Your task to perform on an android device: turn off notifications settings in the gmail app Image 0: 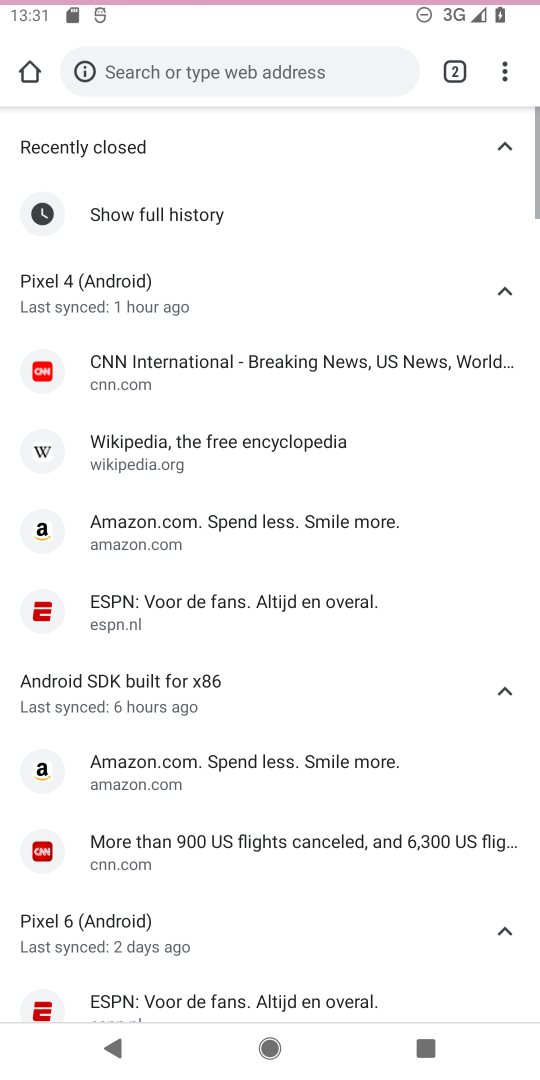
Step 0: press home button
Your task to perform on an android device: turn off notifications settings in the gmail app Image 1: 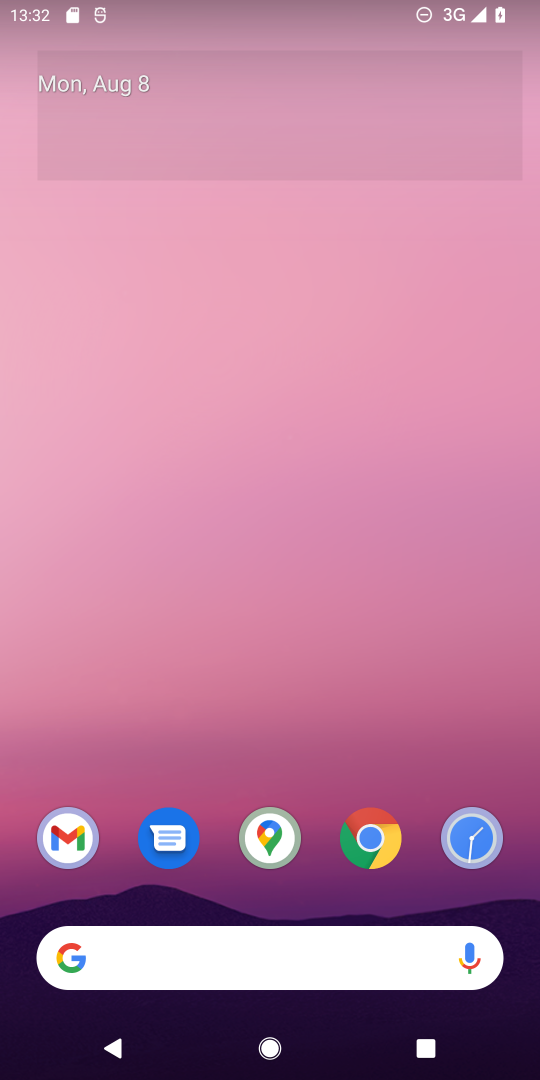
Step 1: click (66, 836)
Your task to perform on an android device: turn off notifications settings in the gmail app Image 2: 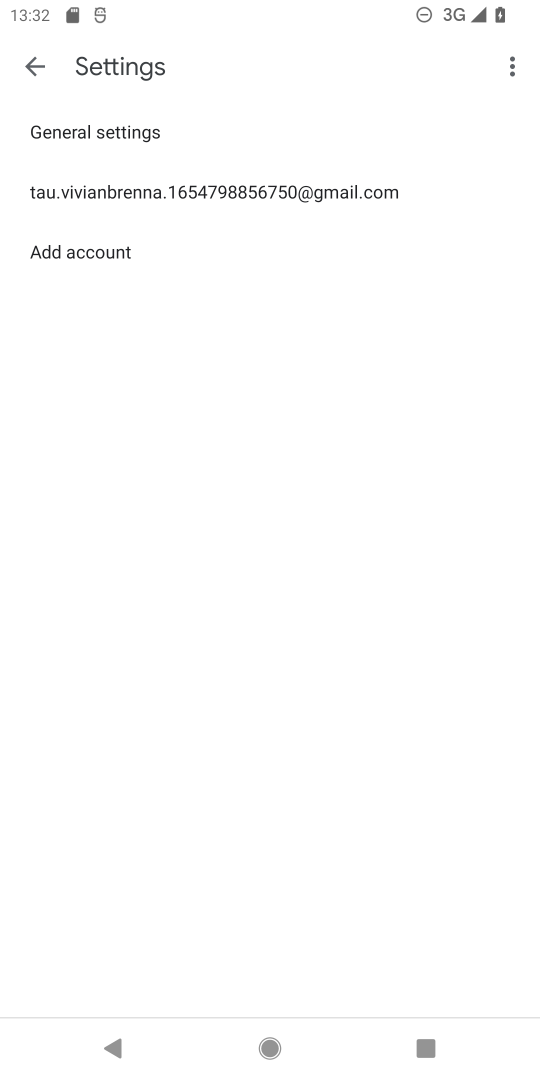
Step 2: click (148, 189)
Your task to perform on an android device: turn off notifications settings in the gmail app Image 3: 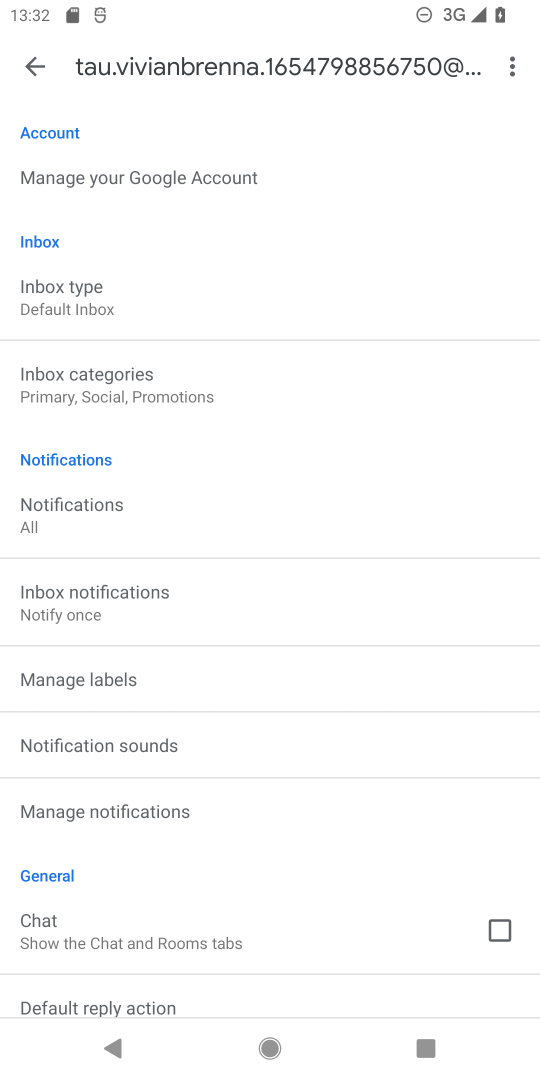
Step 3: drag from (266, 921) to (189, 102)
Your task to perform on an android device: turn off notifications settings in the gmail app Image 4: 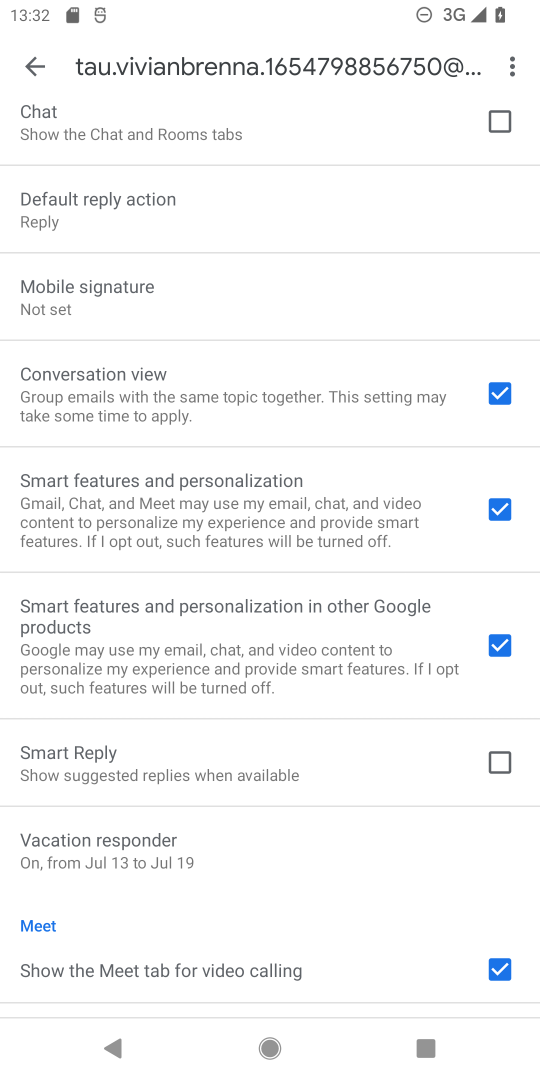
Step 4: drag from (270, 251) to (196, 759)
Your task to perform on an android device: turn off notifications settings in the gmail app Image 5: 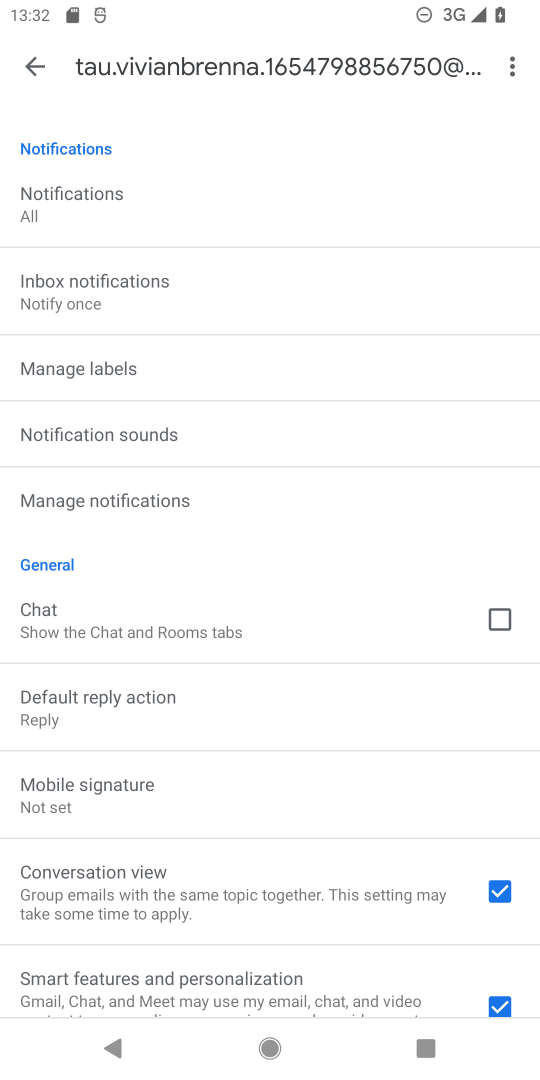
Step 5: click (93, 500)
Your task to perform on an android device: turn off notifications settings in the gmail app Image 6: 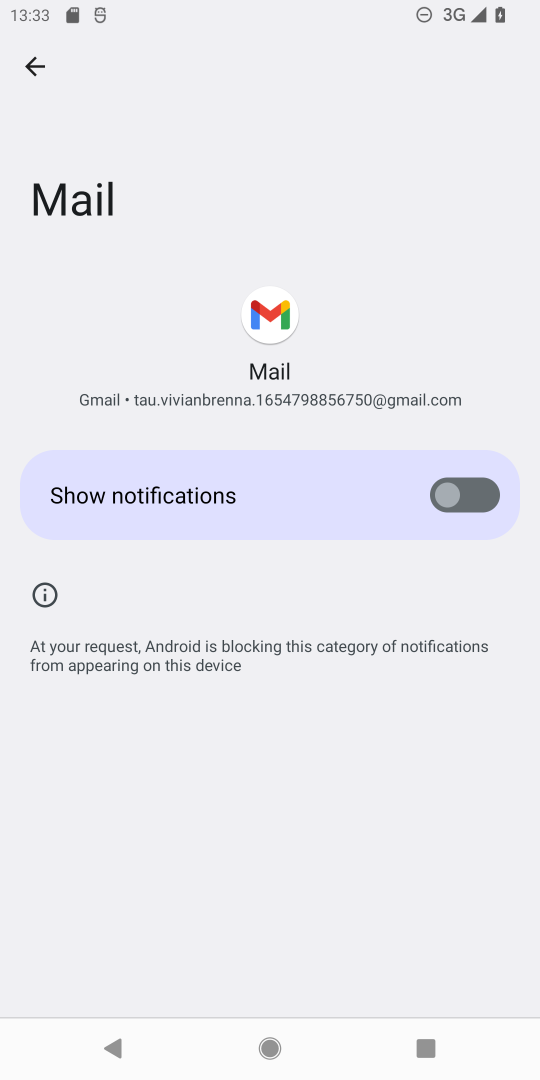
Step 6: task complete